Your task to perform on an android device: toggle wifi Image 0: 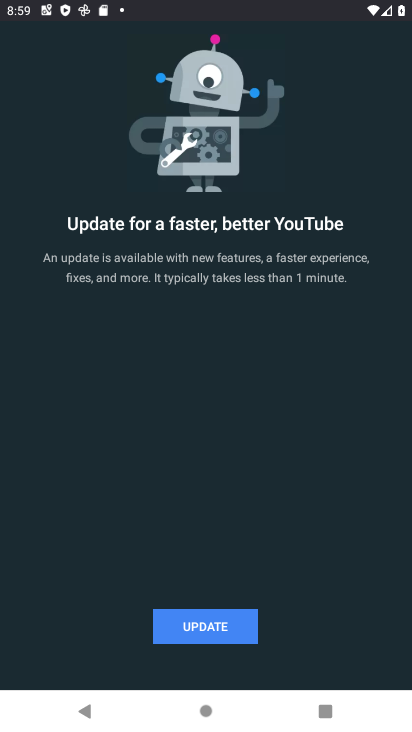
Step 0: press home button
Your task to perform on an android device: toggle wifi Image 1: 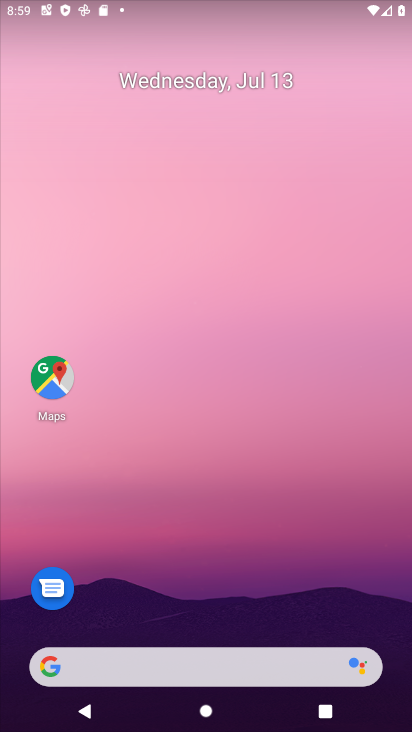
Step 1: drag from (260, 712) to (367, 26)
Your task to perform on an android device: toggle wifi Image 2: 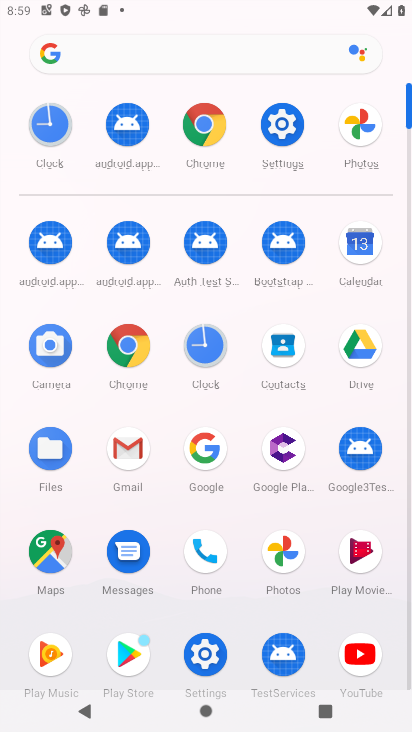
Step 2: click (296, 106)
Your task to perform on an android device: toggle wifi Image 3: 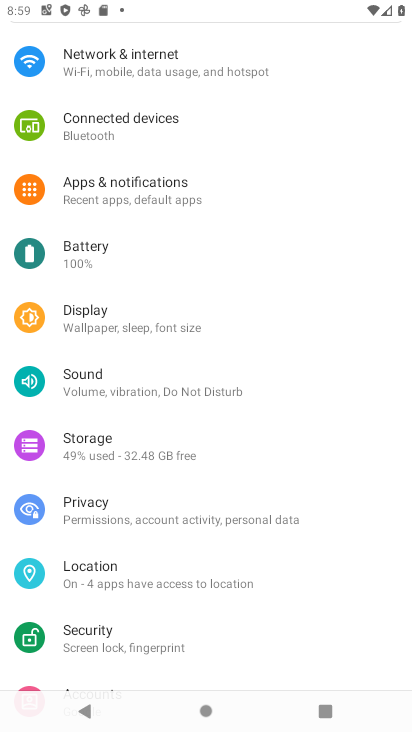
Step 3: drag from (263, 261) to (179, 640)
Your task to perform on an android device: toggle wifi Image 4: 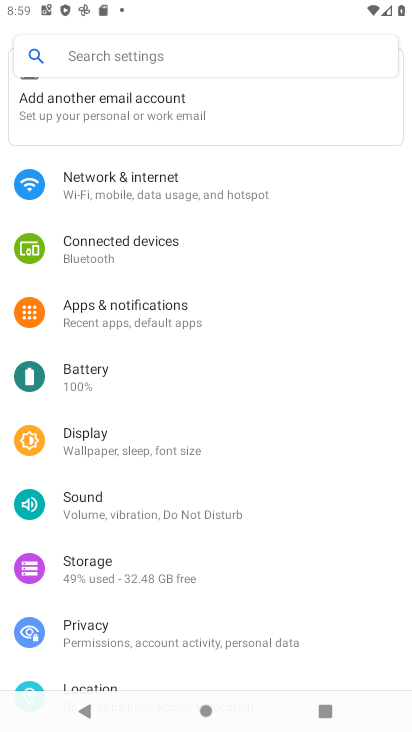
Step 4: click (152, 202)
Your task to perform on an android device: toggle wifi Image 5: 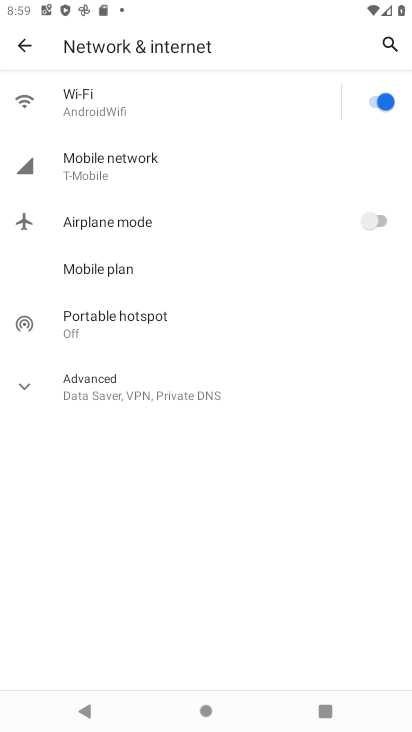
Step 5: click (383, 96)
Your task to perform on an android device: toggle wifi Image 6: 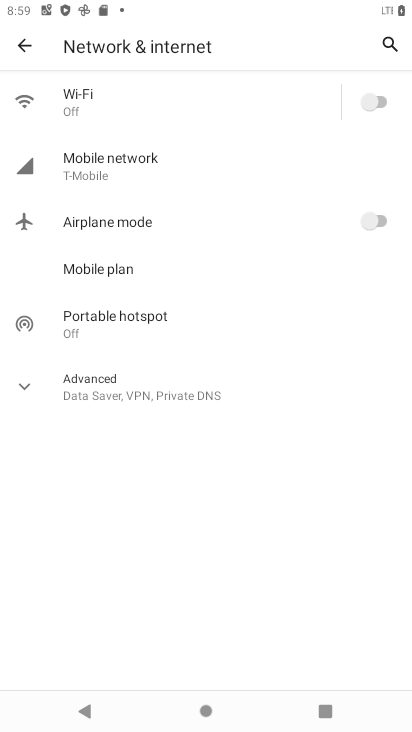
Step 6: task complete